Your task to perform on an android device: turn off location Image 0: 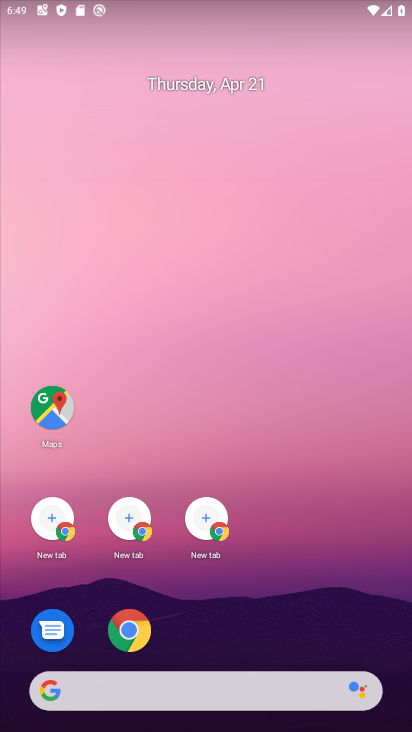
Step 0: drag from (311, 591) to (137, 367)
Your task to perform on an android device: turn off location Image 1: 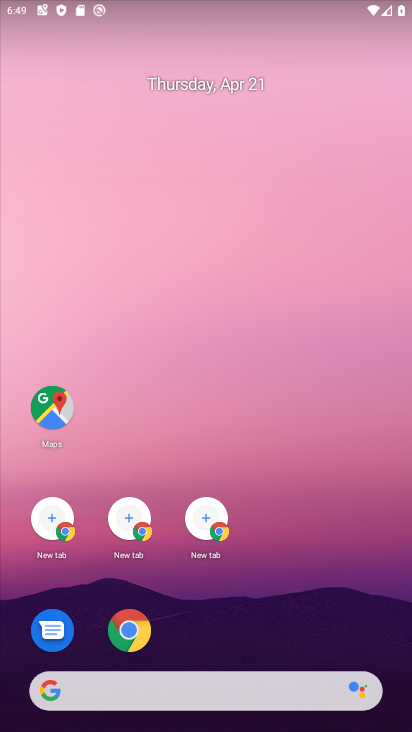
Step 1: drag from (275, 555) to (192, 297)
Your task to perform on an android device: turn off location Image 2: 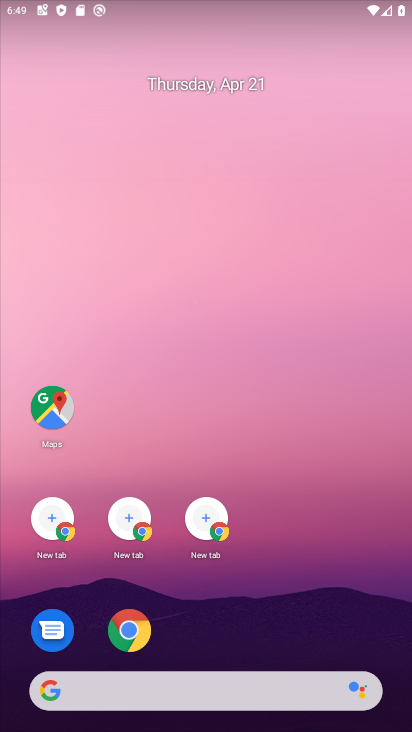
Step 2: drag from (327, 591) to (42, 325)
Your task to perform on an android device: turn off location Image 3: 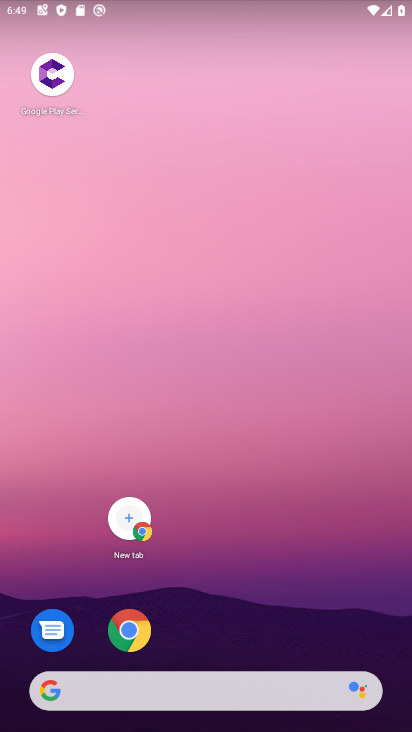
Step 3: drag from (283, 573) to (202, 18)
Your task to perform on an android device: turn off location Image 4: 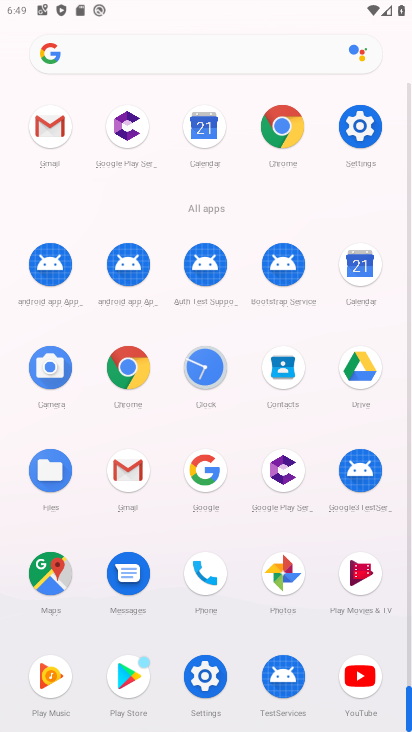
Step 4: click (356, 135)
Your task to perform on an android device: turn off location Image 5: 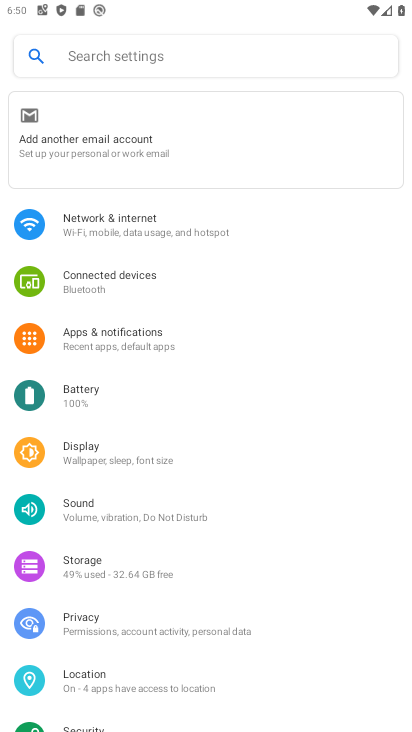
Step 5: click (179, 683)
Your task to perform on an android device: turn off location Image 6: 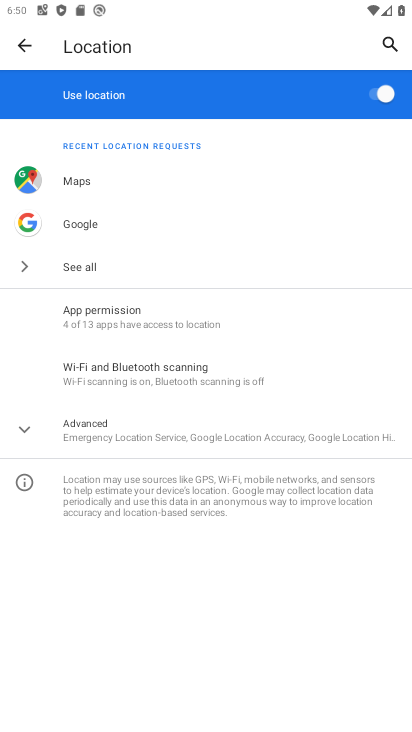
Step 6: click (377, 96)
Your task to perform on an android device: turn off location Image 7: 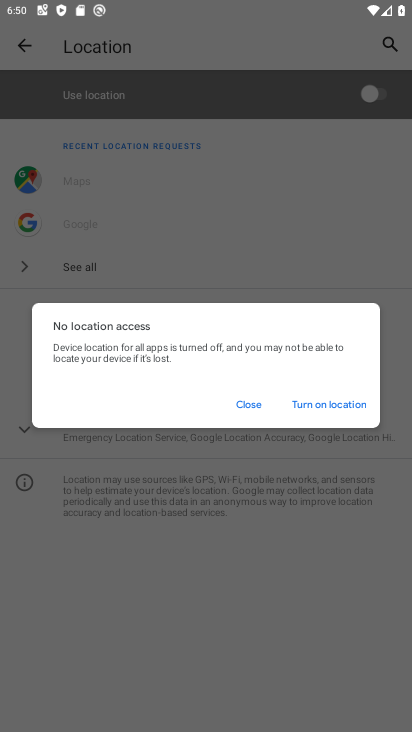
Step 7: task complete